Your task to perform on an android device: check storage Image 0: 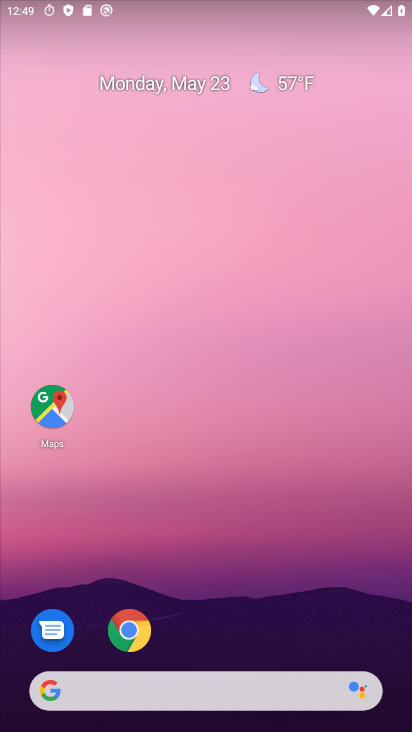
Step 0: drag from (293, 566) to (262, 6)
Your task to perform on an android device: check storage Image 1: 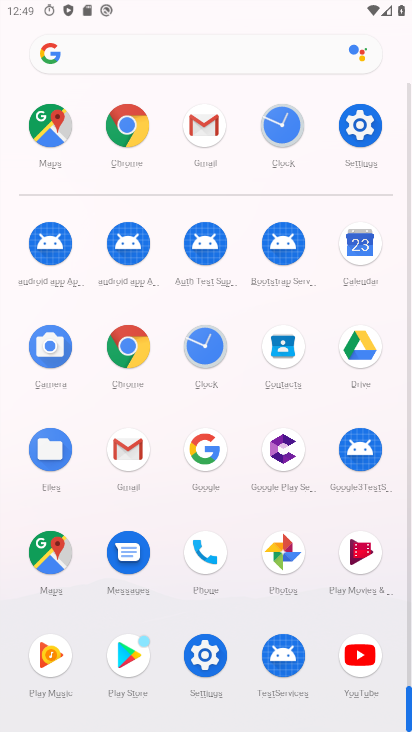
Step 1: click (201, 651)
Your task to perform on an android device: check storage Image 2: 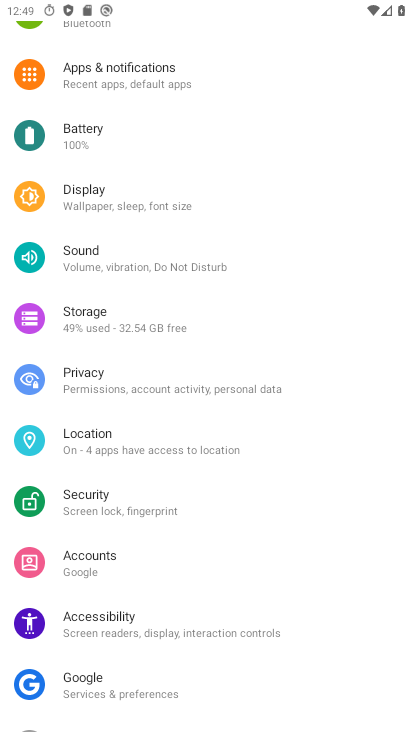
Step 2: click (101, 316)
Your task to perform on an android device: check storage Image 3: 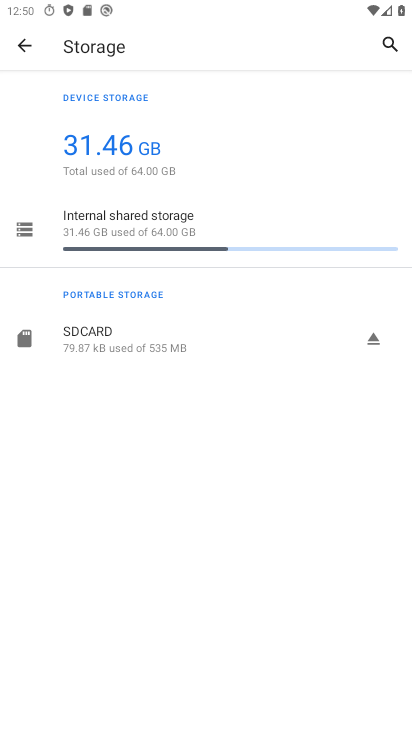
Step 3: task complete